Your task to perform on an android device: Open Chrome and go to the settings page Image 0: 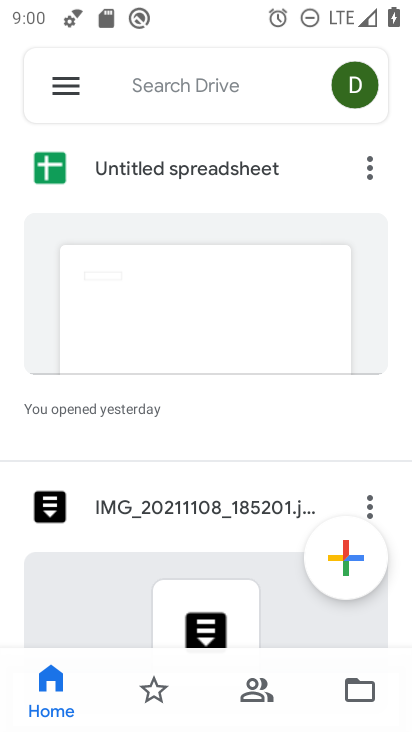
Step 0: press home button
Your task to perform on an android device: Open Chrome and go to the settings page Image 1: 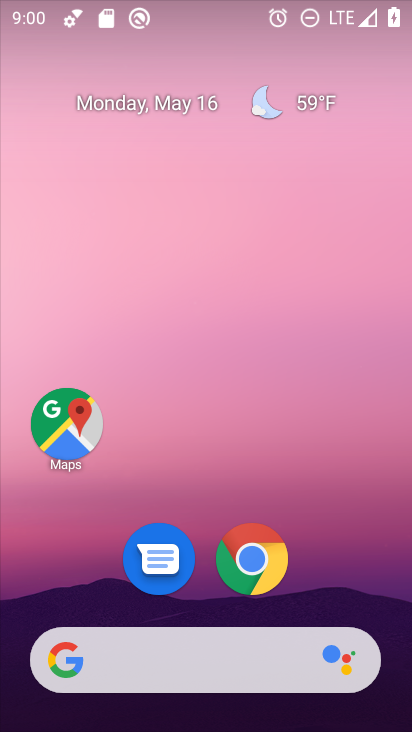
Step 1: drag from (344, 587) to (324, 151)
Your task to perform on an android device: Open Chrome and go to the settings page Image 2: 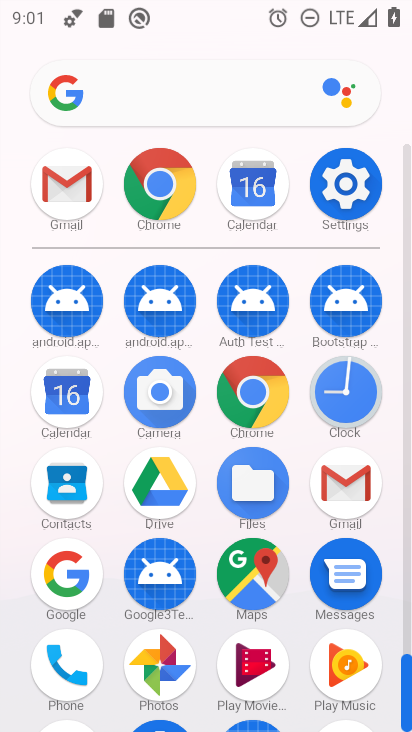
Step 2: click (344, 185)
Your task to perform on an android device: Open Chrome and go to the settings page Image 3: 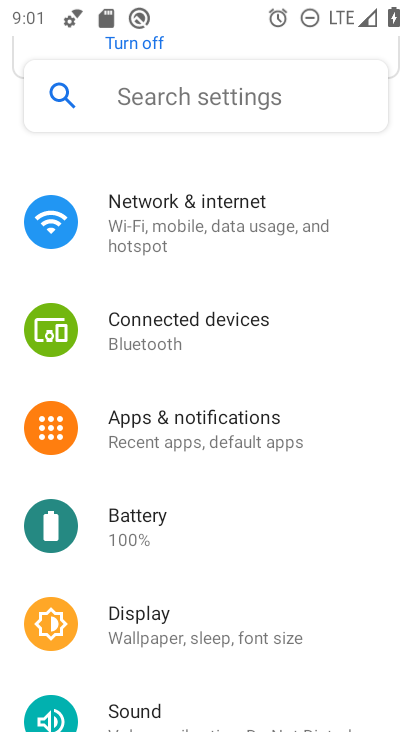
Step 3: press home button
Your task to perform on an android device: Open Chrome and go to the settings page Image 4: 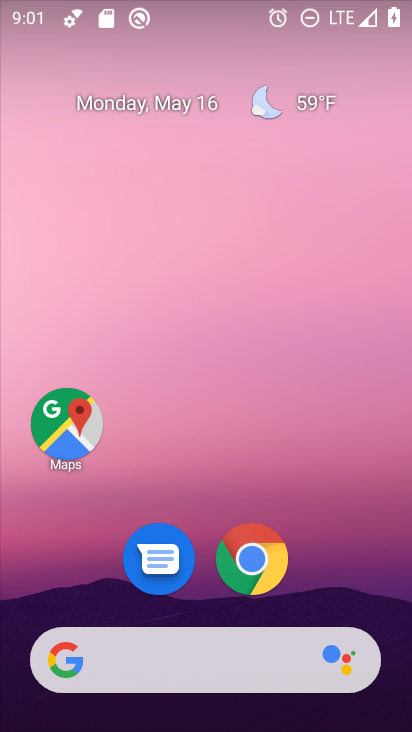
Step 4: click (267, 576)
Your task to perform on an android device: Open Chrome and go to the settings page Image 5: 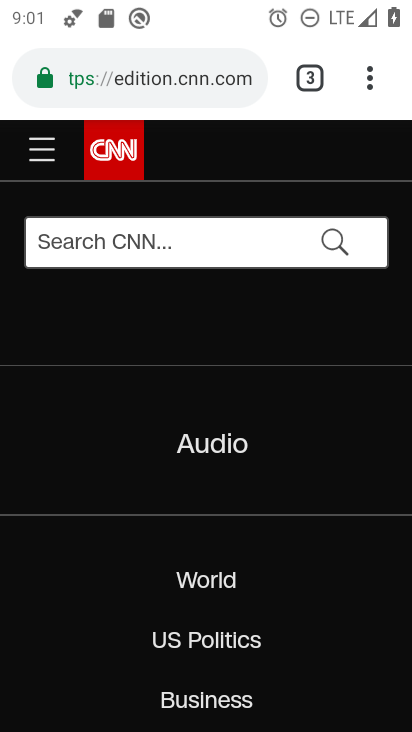
Step 5: task complete